Your task to perform on an android device: change keyboard looks Image 0: 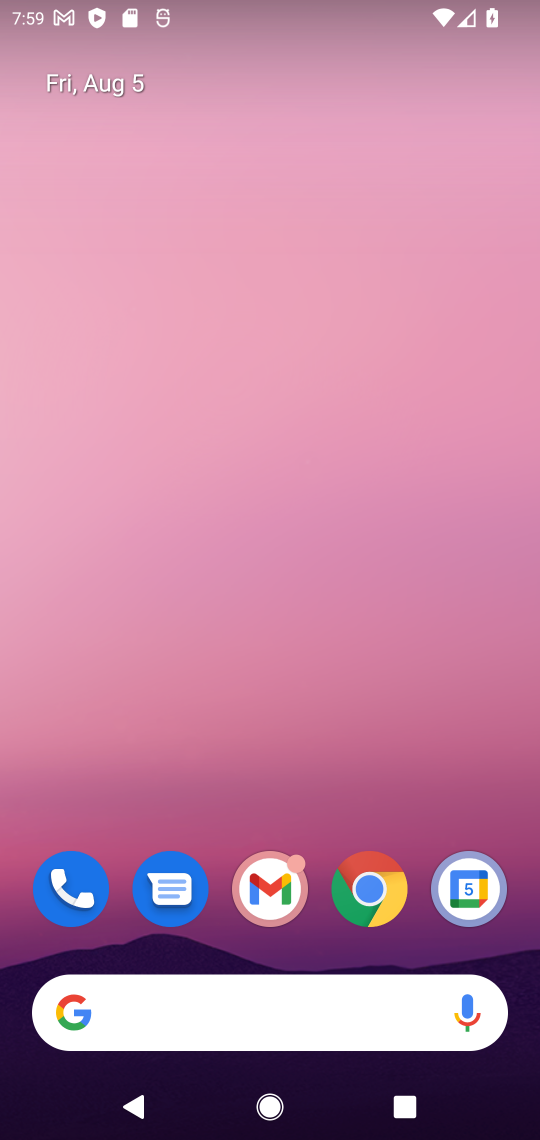
Step 0: drag from (304, 922) to (312, 121)
Your task to perform on an android device: change keyboard looks Image 1: 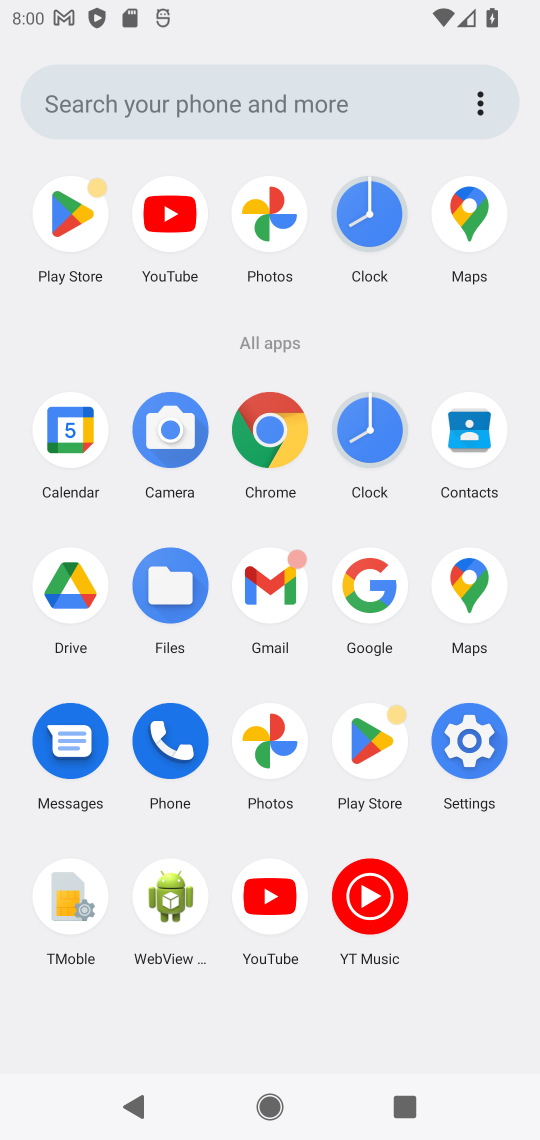
Step 1: click (456, 752)
Your task to perform on an android device: change keyboard looks Image 2: 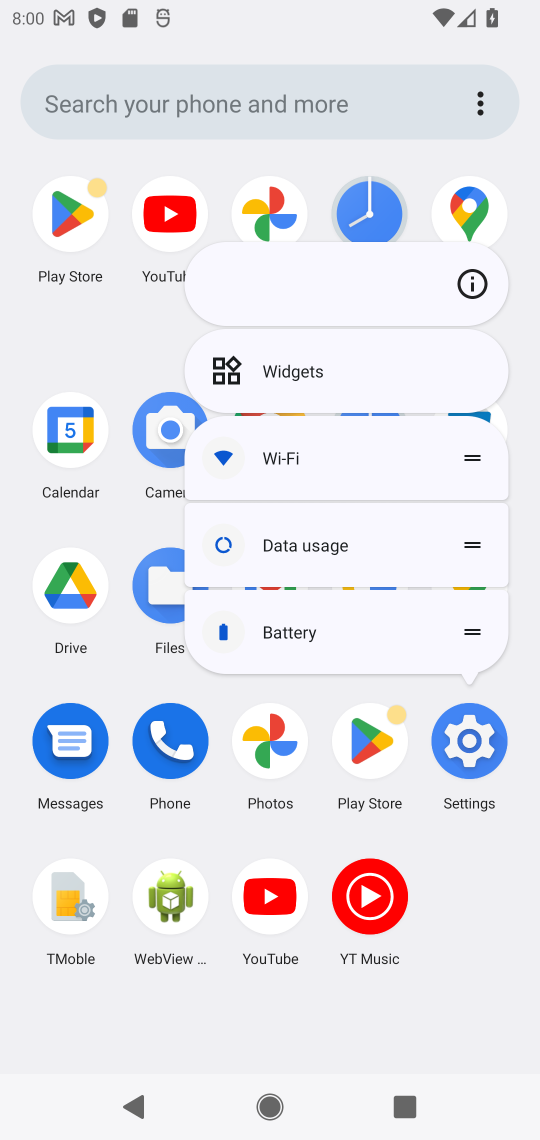
Step 2: click (456, 752)
Your task to perform on an android device: change keyboard looks Image 3: 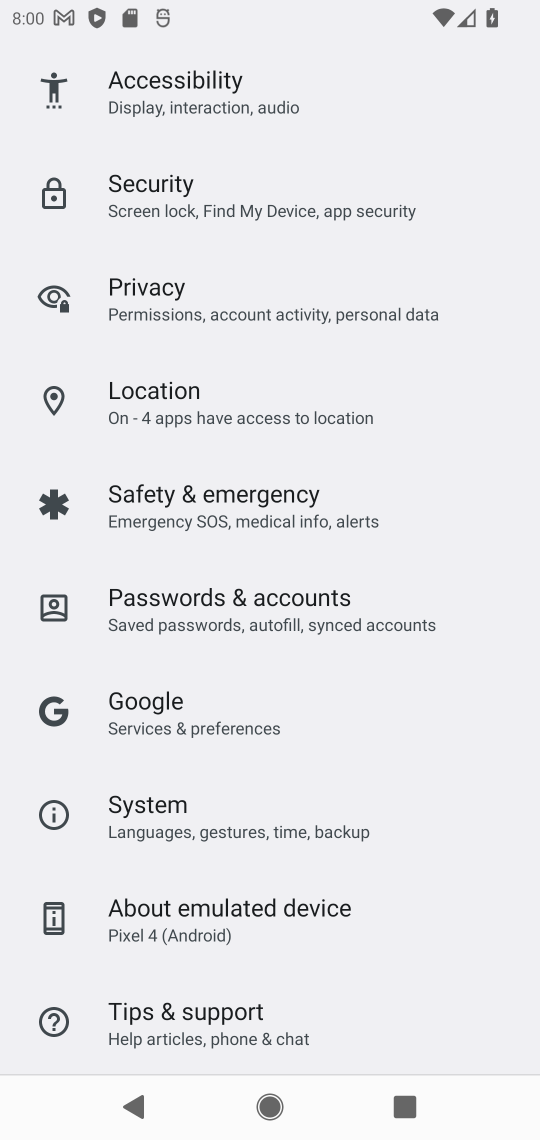
Step 3: click (215, 827)
Your task to perform on an android device: change keyboard looks Image 4: 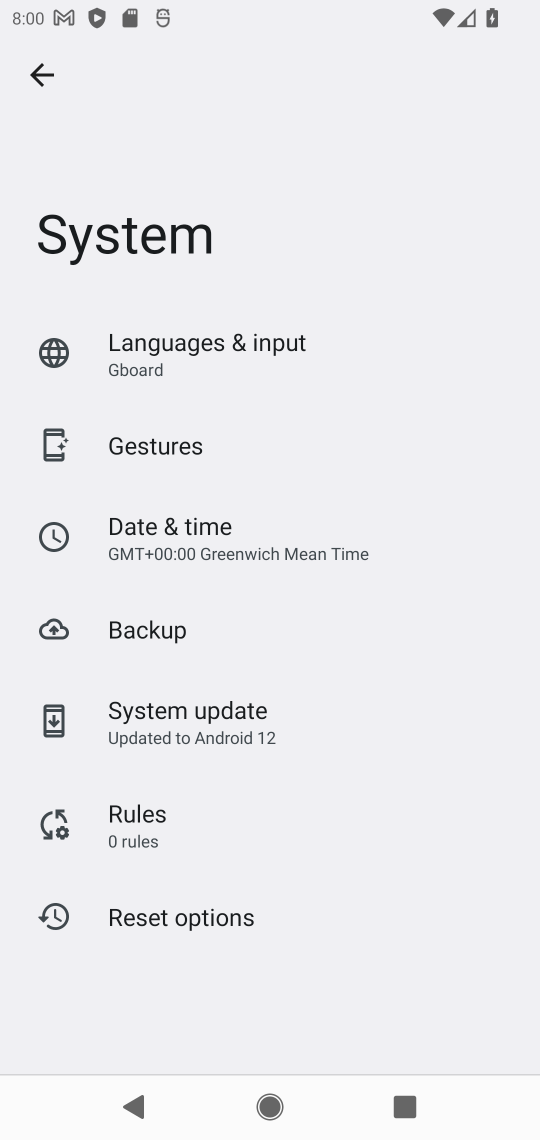
Step 4: click (208, 363)
Your task to perform on an android device: change keyboard looks Image 5: 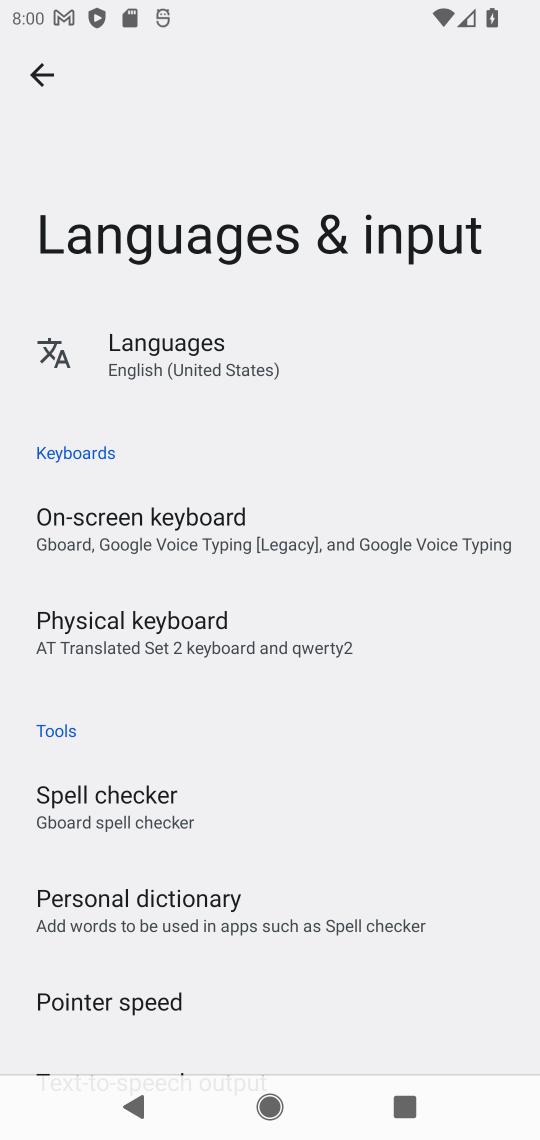
Step 5: click (132, 368)
Your task to perform on an android device: change keyboard looks Image 6: 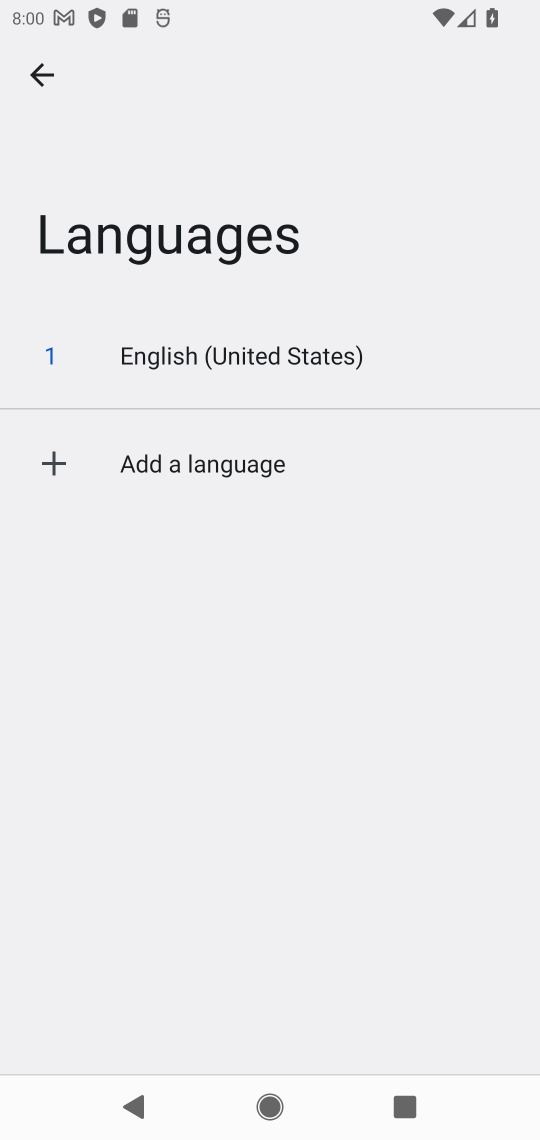
Step 6: click (25, 78)
Your task to perform on an android device: change keyboard looks Image 7: 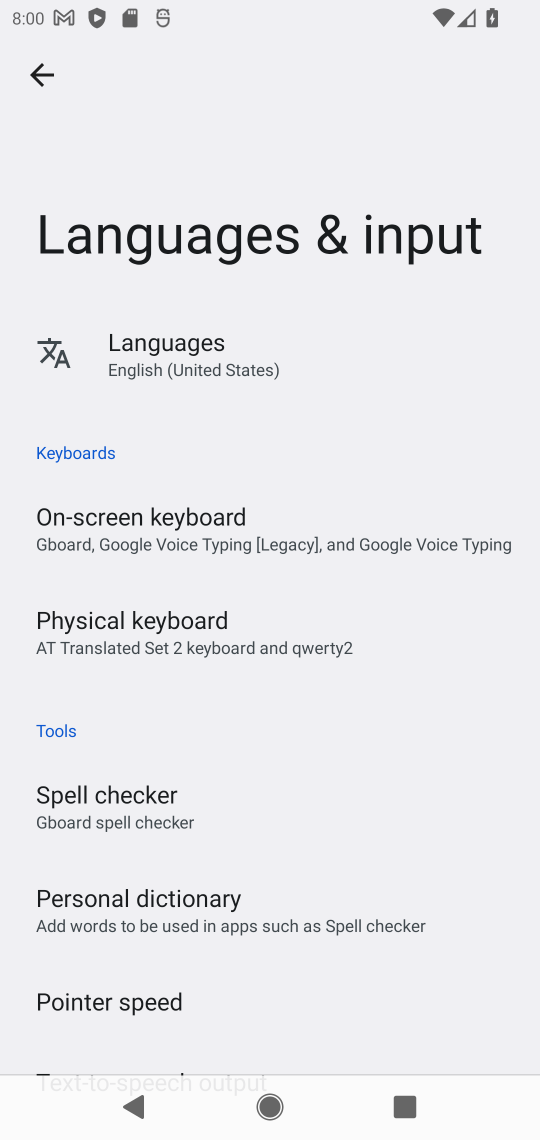
Step 7: click (179, 539)
Your task to perform on an android device: change keyboard looks Image 8: 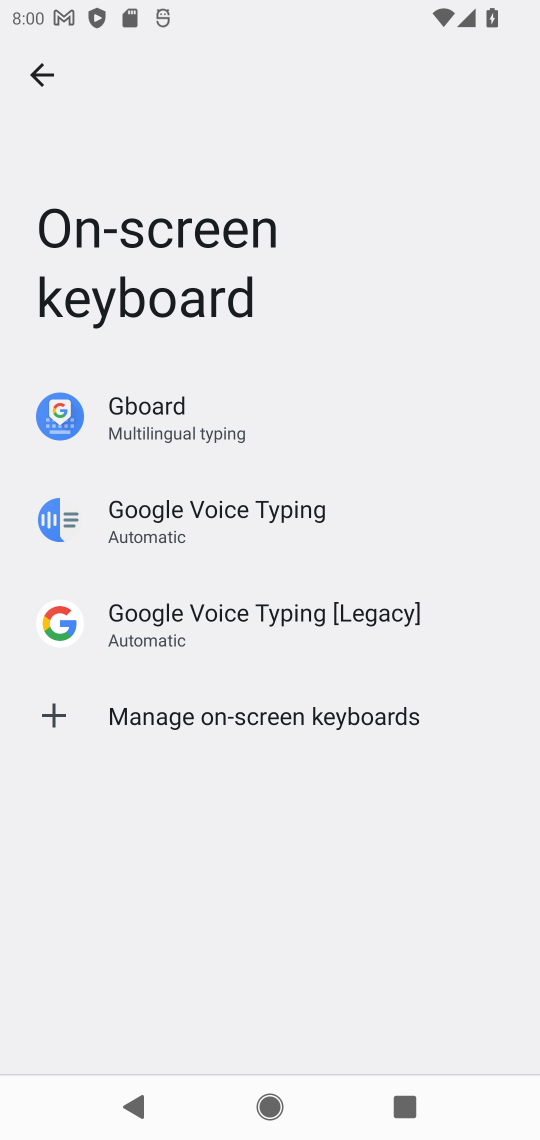
Step 8: click (233, 420)
Your task to perform on an android device: change keyboard looks Image 9: 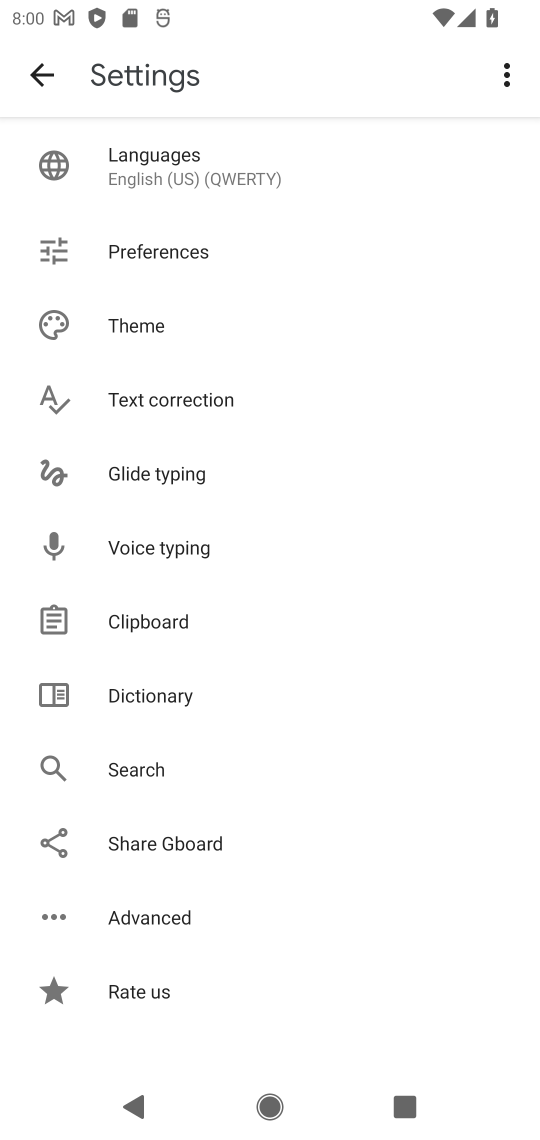
Step 9: click (134, 346)
Your task to perform on an android device: change keyboard looks Image 10: 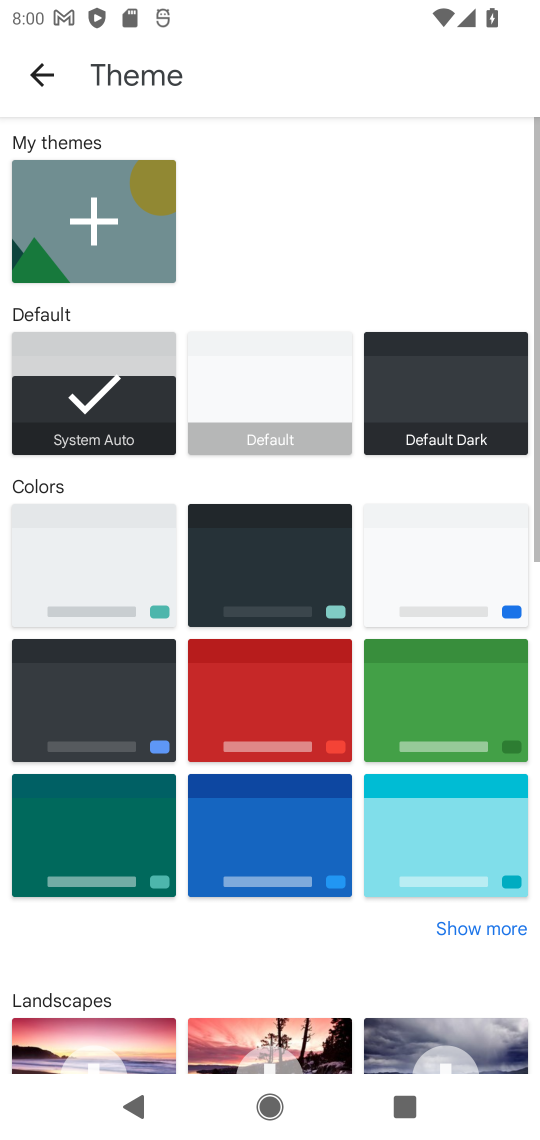
Step 10: click (233, 734)
Your task to perform on an android device: change keyboard looks Image 11: 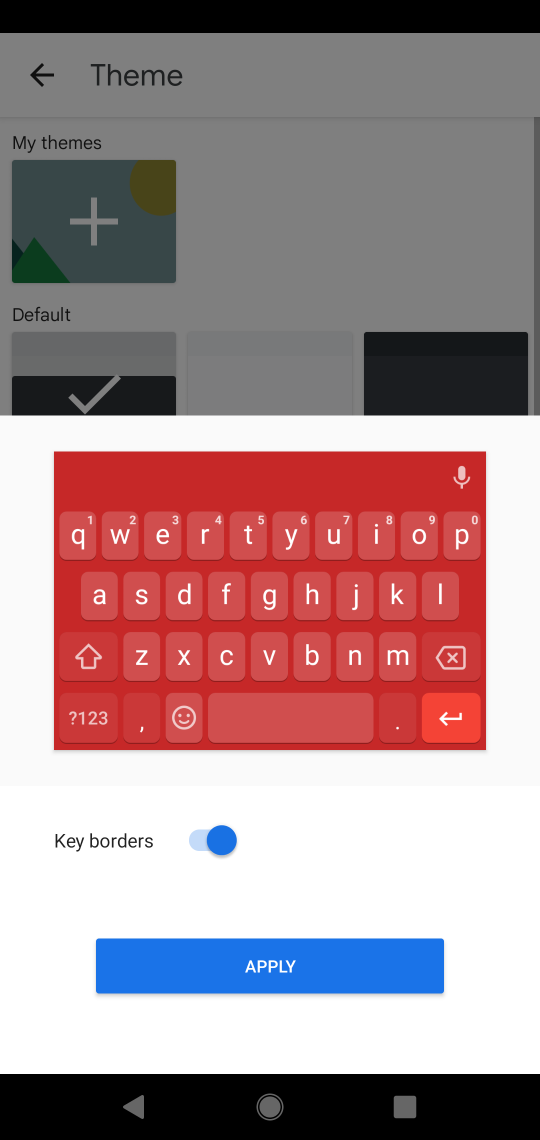
Step 11: click (290, 973)
Your task to perform on an android device: change keyboard looks Image 12: 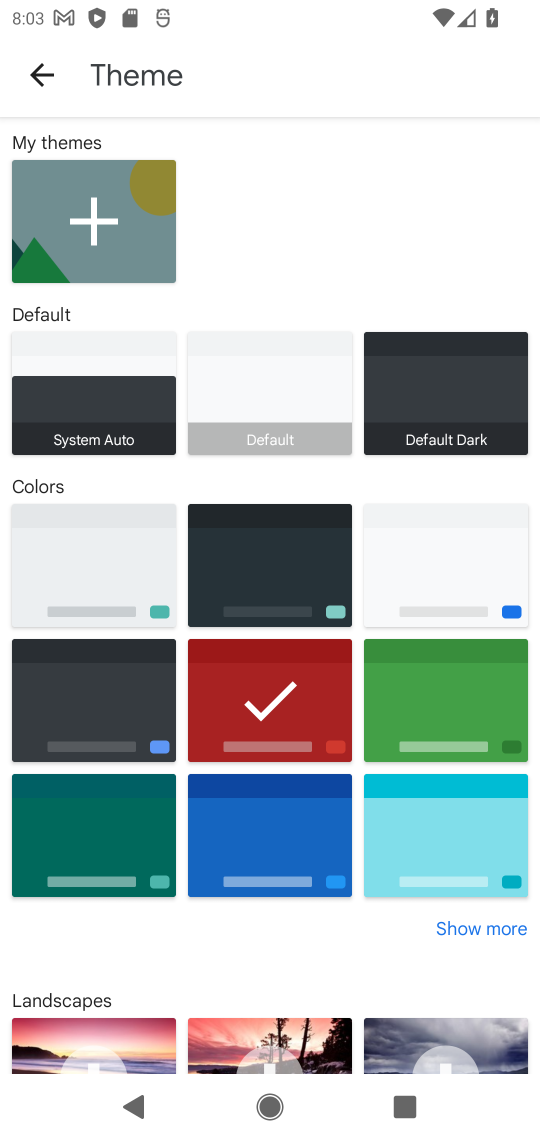
Step 12: task complete